Your task to perform on an android device: Search for the best rated soccer ball on AliExpress Image 0: 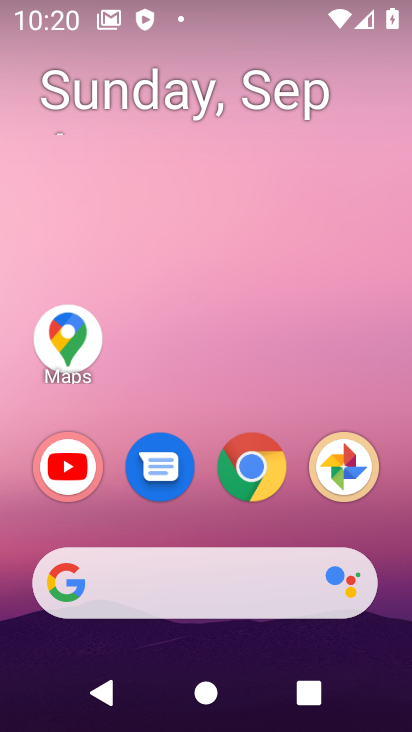
Step 0: click (267, 459)
Your task to perform on an android device: Search for the best rated soccer ball on AliExpress Image 1: 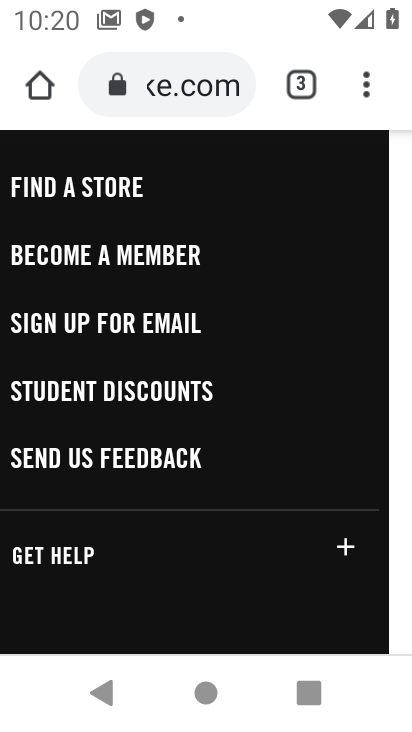
Step 1: click (208, 81)
Your task to perform on an android device: Search for the best rated soccer ball on AliExpress Image 2: 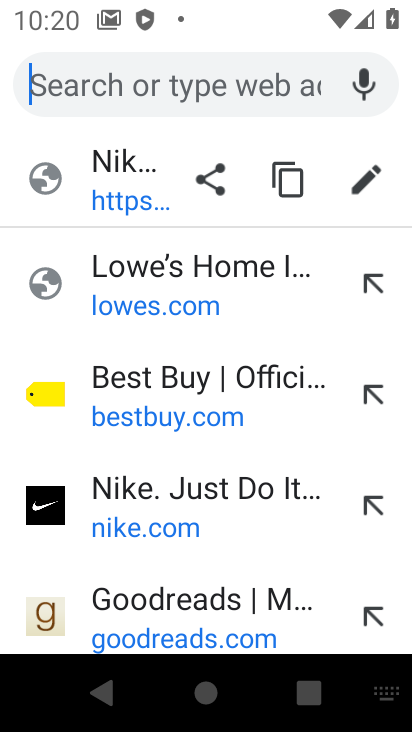
Step 2: type "aliexpress"
Your task to perform on an android device: Search for the best rated soccer ball on AliExpress Image 3: 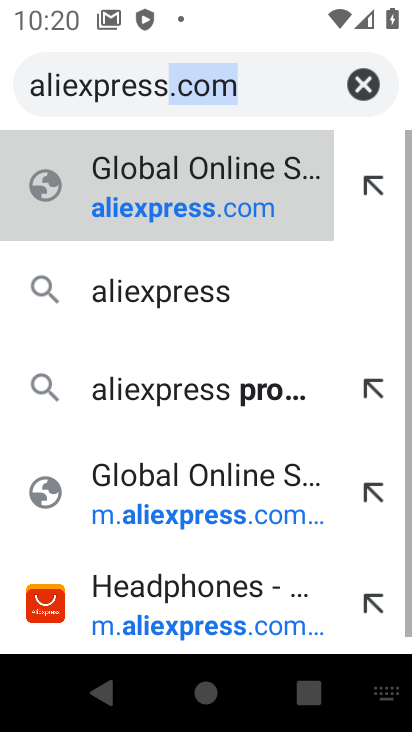
Step 3: type ""
Your task to perform on an android device: Search for the best rated soccer ball on AliExpress Image 4: 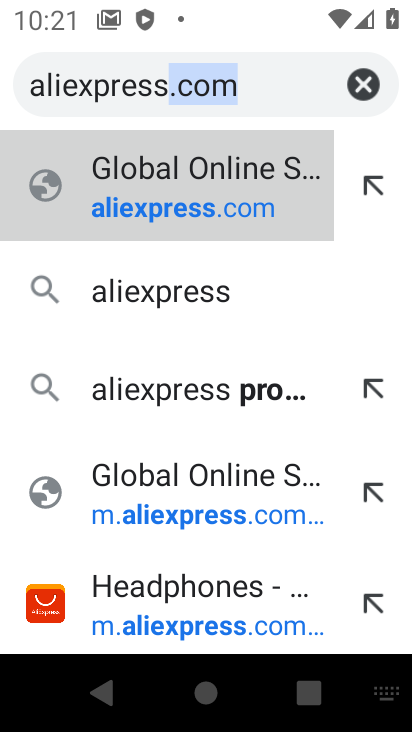
Step 4: click (127, 211)
Your task to perform on an android device: Search for the best rated soccer ball on AliExpress Image 5: 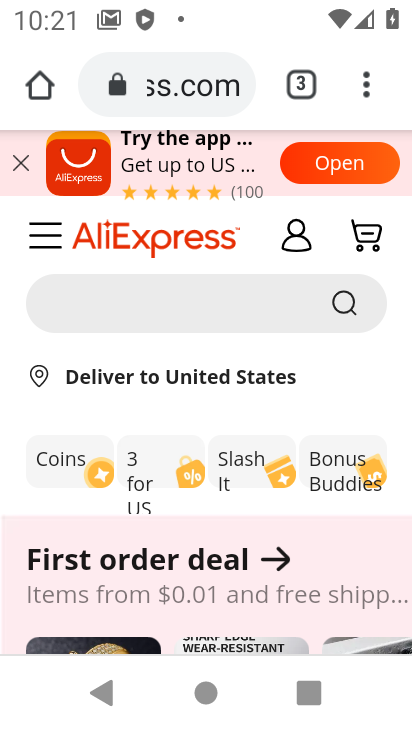
Step 5: click (149, 301)
Your task to perform on an android device: Search for the best rated soccer ball on AliExpress Image 6: 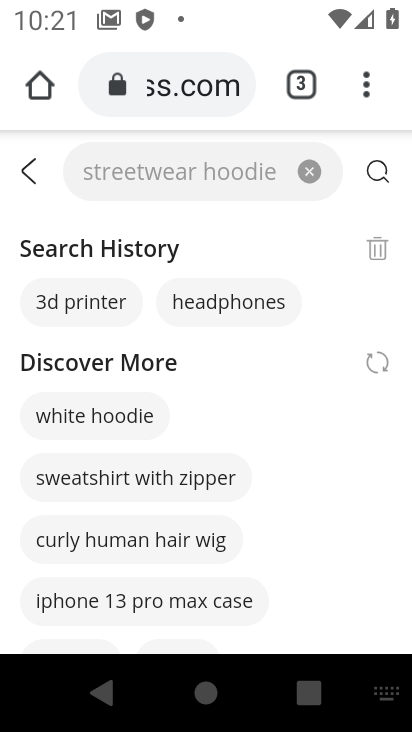
Step 6: type "soccer ball"
Your task to perform on an android device: Search for the best rated soccer ball on AliExpress Image 7: 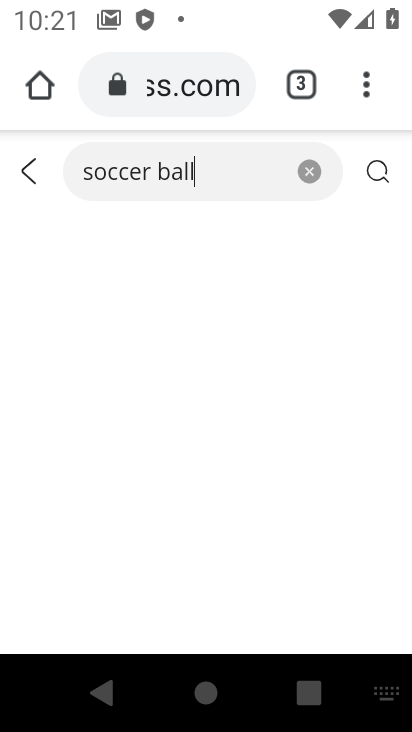
Step 7: type ""
Your task to perform on an android device: Search for the best rated soccer ball on AliExpress Image 8: 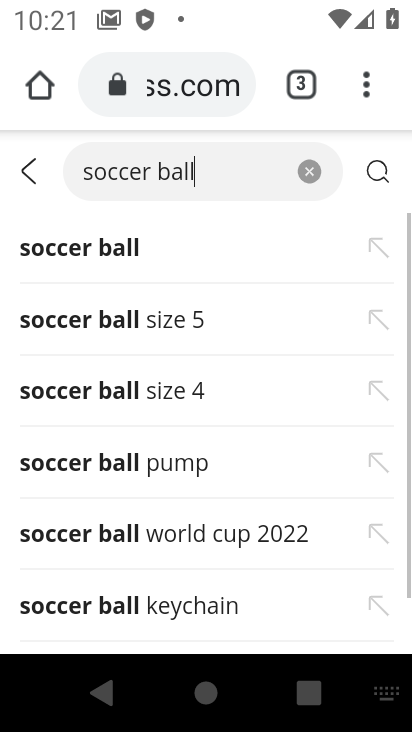
Step 8: click (105, 244)
Your task to perform on an android device: Search for the best rated soccer ball on AliExpress Image 9: 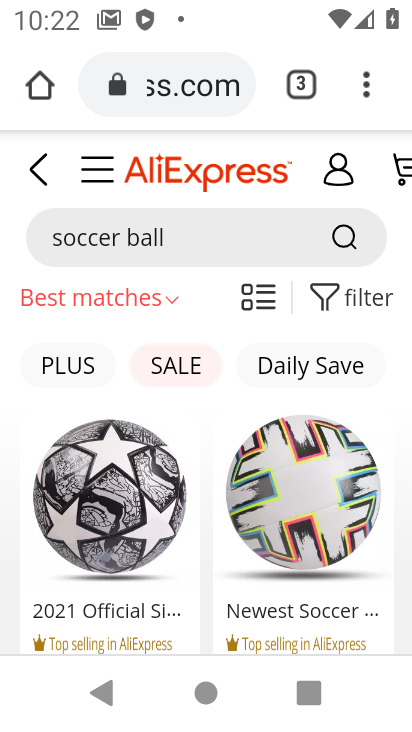
Step 9: drag from (304, 560) to (362, 265)
Your task to perform on an android device: Search for the best rated soccer ball on AliExpress Image 10: 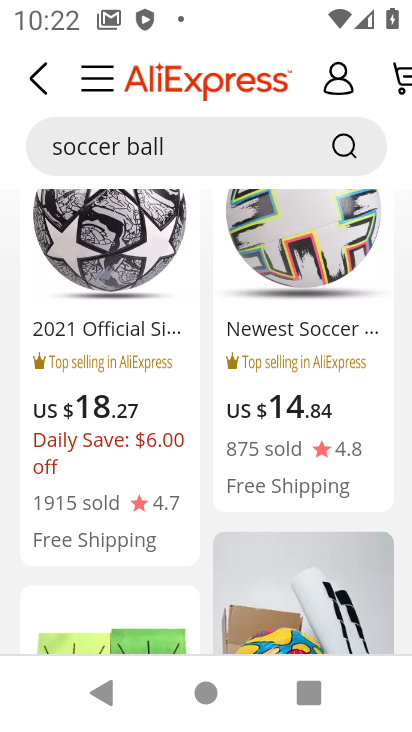
Step 10: drag from (264, 349) to (314, 718)
Your task to perform on an android device: Search for the best rated soccer ball on AliExpress Image 11: 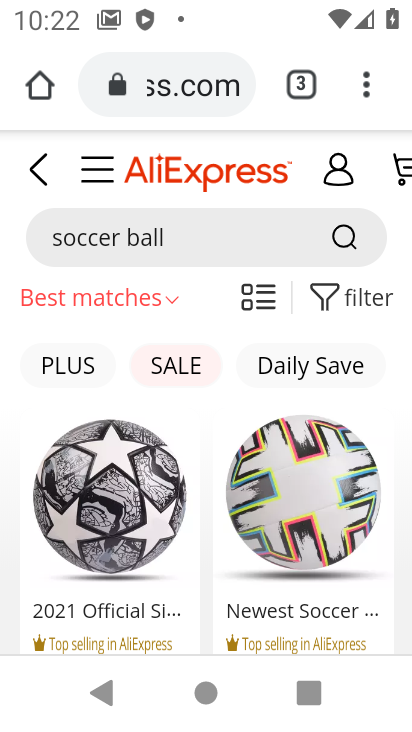
Step 11: click (378, 300)
Your task to perform on an android device: Search for the best rated soccer ball on AliExpress Image 12: 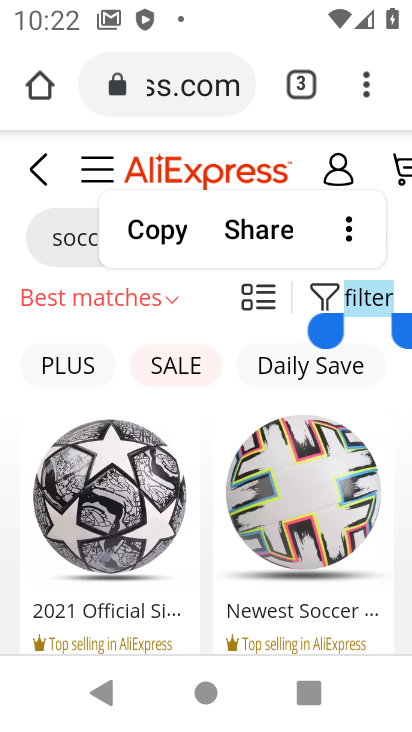
Step 12: click (361, 292)
Your task to perform on an android device: Search for the best rated soccer ball on AliExpress Image 13: 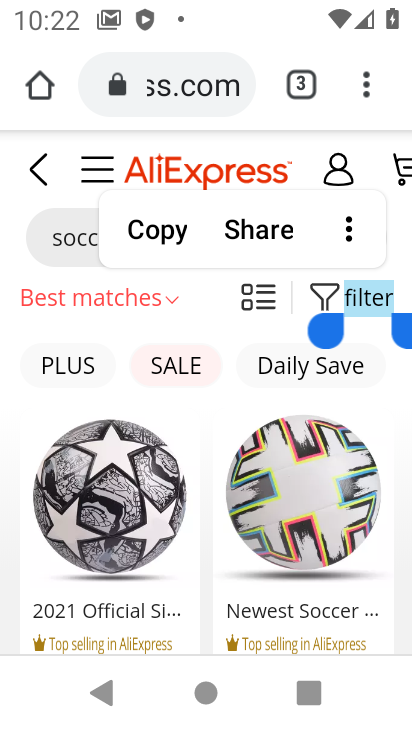
Step 13: click (360, 297)
Your task to perform on an android device: Search for the best rated soccer ball on AliExpress Image 14: 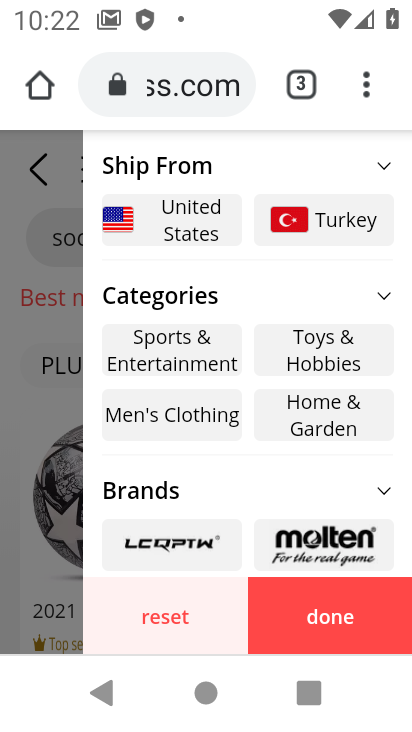
Step 14: click (16, 430)
Your task to perform on an android device: Search for the best rated soccer ball on AliExpress Image 15: 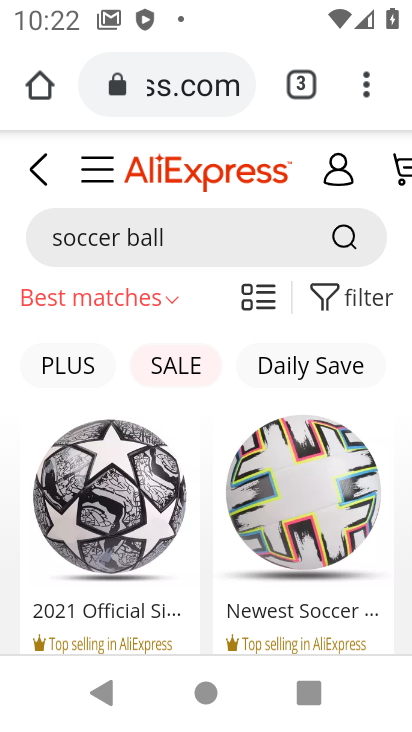
Step 15: drag from (176, 542) to (245, 235)
Your task to perform on an android device: Search for the best rated soccer ball on AliExpress Image 16: 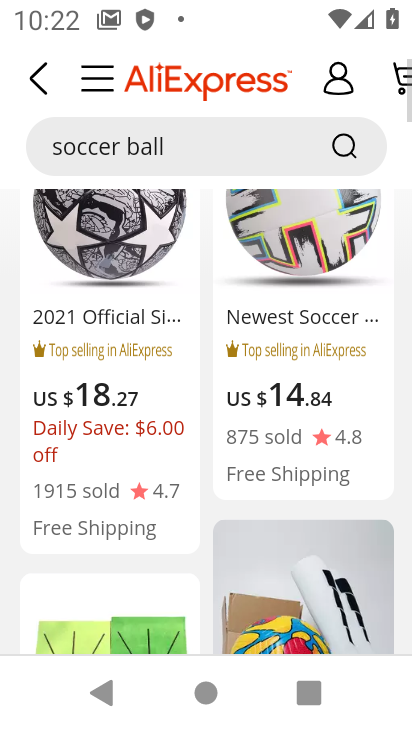
Step 16: drag from (207, 323) to (222, 275)
Your task to perform on an android device: Search for the best rated soccer ball on AliExpress Image 17: 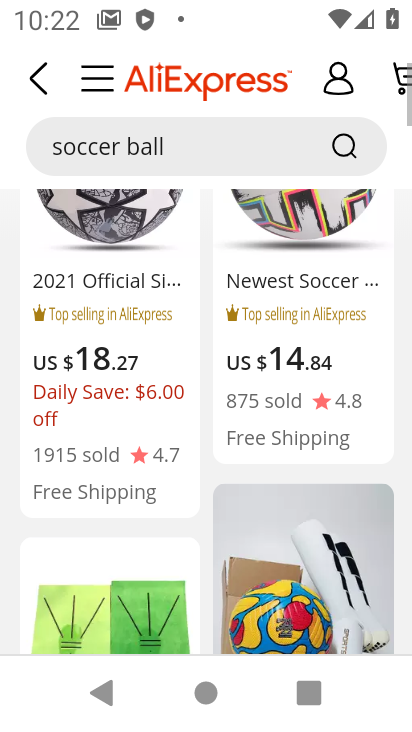
Step 17: drag from (239, 531) to (253, 217)
Your task to perform on an android device: Search for the best rated soccer ball on AliExpress Image 18: 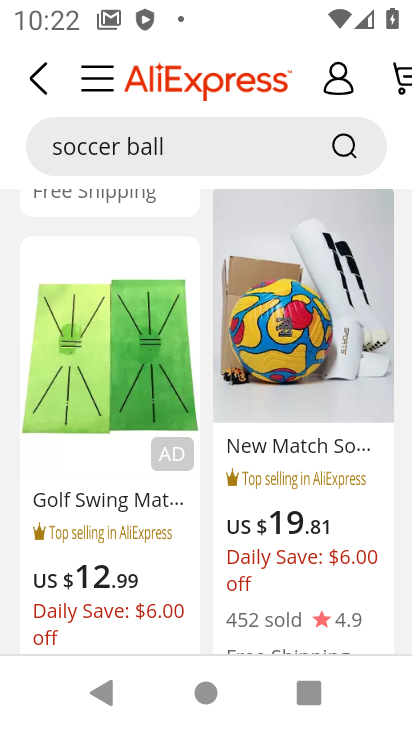
Step 18: drag from (230, 481) to (265, 251)
Your task to perform on an android device: Search for the best rated soccer ball on AliExpress Image 19: 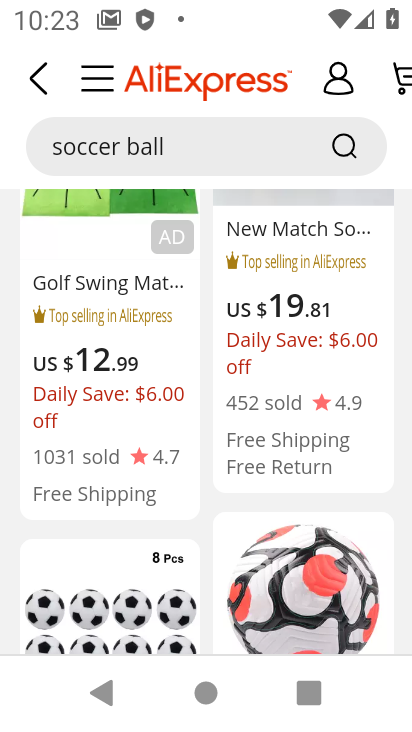
Step 19: drag from (135, 464) to (187, 130)
Your task to perform on an android device: Search for the best rated soccer ball on AliExpress Image 20: 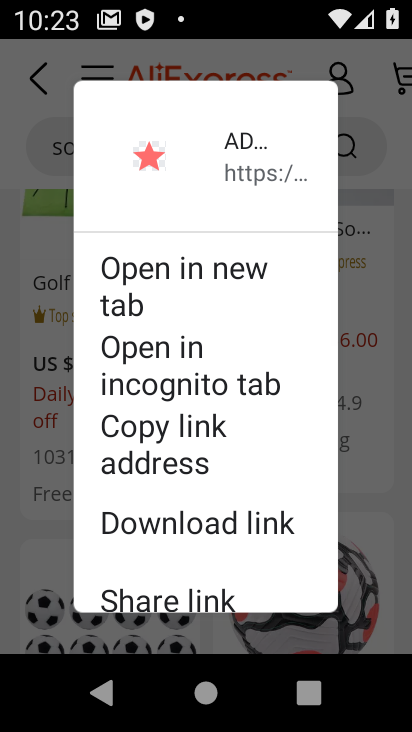
Step 20: click (393, 482)
Your task to perform on an android device: Search for the best rated soccer ball on AliExpress Image 21: 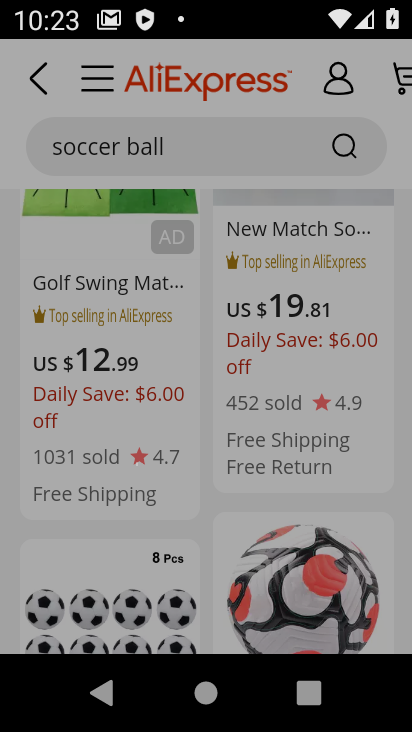
Step 21: task complete